Your task to perform on an android device: change alarm snooze length Image 0: 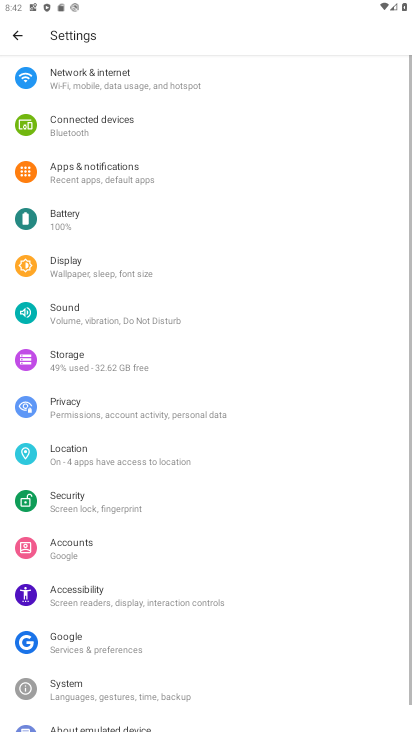
Step 0: press home button
Your task to perform on an android device: change alarm snooze length Image 1: 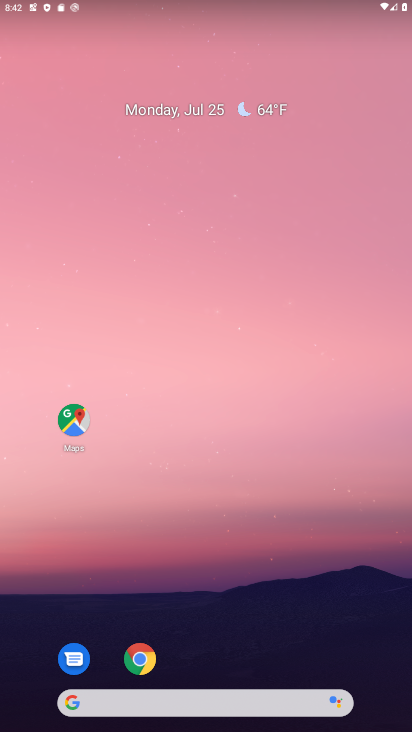
Step 1: drag from (356, 598) to (355, 93)
Your task to perform on an android device: change alarm snooze length Image 2: 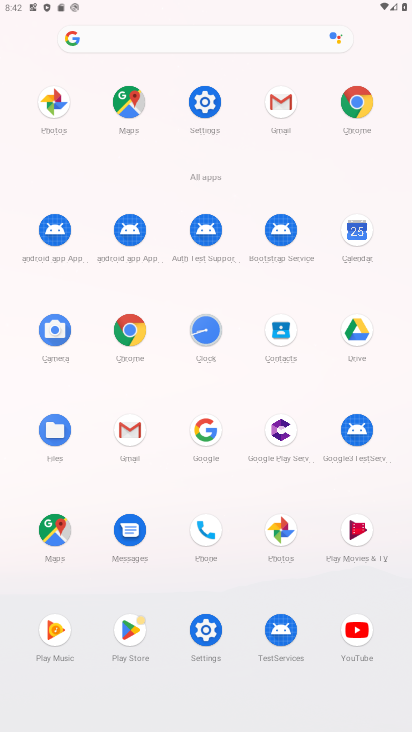
Step 2: click (206, 334)
Your task to perform on an android device: change alarm snooze length Image 3: 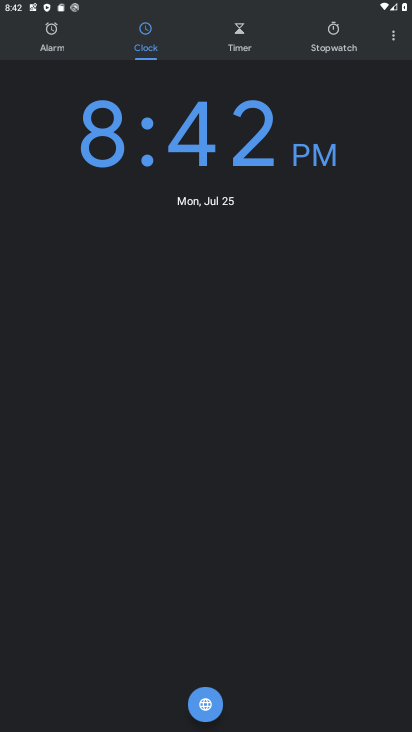
Step 3: click (394, 39)
Your task to perform on an android device: change alarm snooze length Image 4: 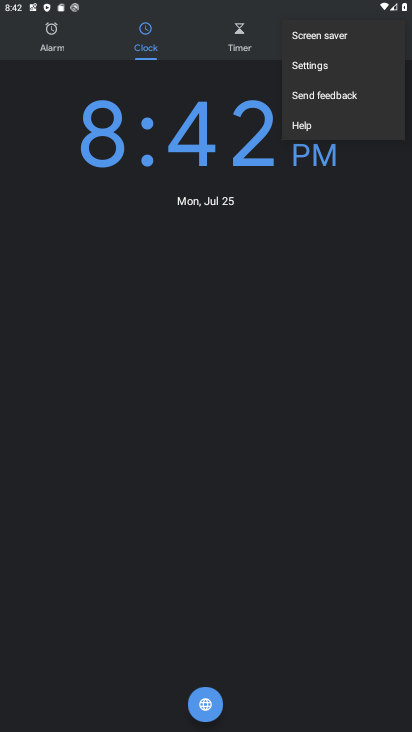
Step 4: click (328, 67)
Your task to perform on an android device: change alarm snooze length Image 5: 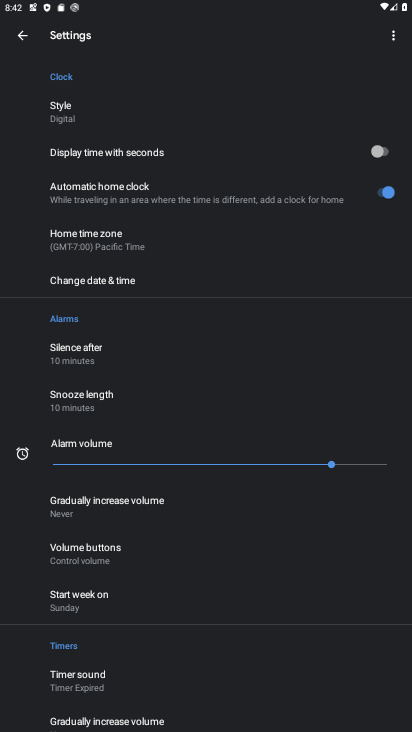
Step 5: drag from (249, 394) to (265, 260)
Your task to perform on an android device: change alarm snooze length Image 6: 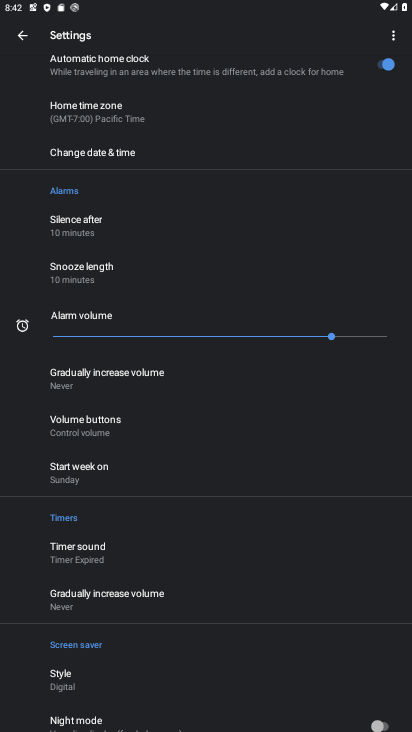
Step 6: drag from (251, 476) to (262, 331)
Your task to perform on an android device: change alarm snooze length Image 7: 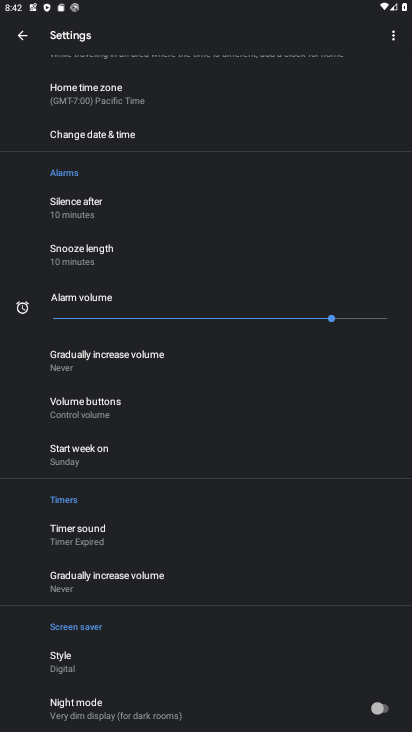
Step 7: drag from (263, 235) to (271, 367)
Your task to perform on an android device: change alarm snooze length Image 8: 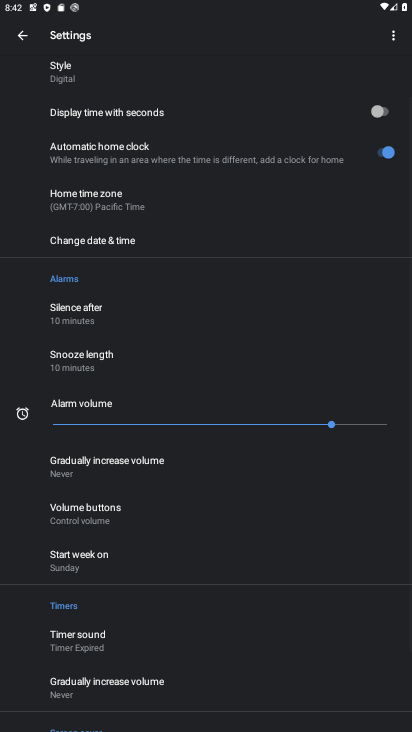
Step 8: drag from (279, 292) to (286, 411)
Your task to perform on an android device: change alarm snooze length Image 9: 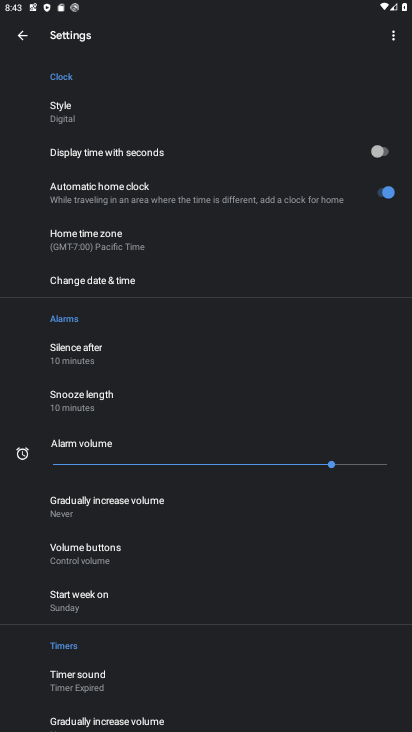
Step 9: click (125, 414)
Your task to perform on an android device: change alarm snooze length Image 10: 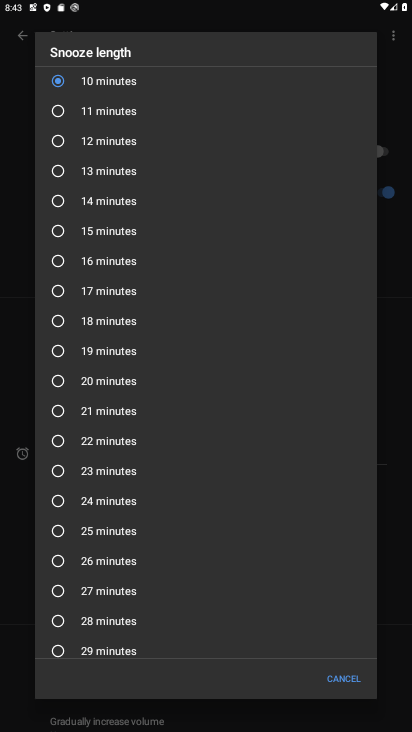
Step 10: click (140, 469)
Your task to perform on an android device: change alarm snooze length Image 11: 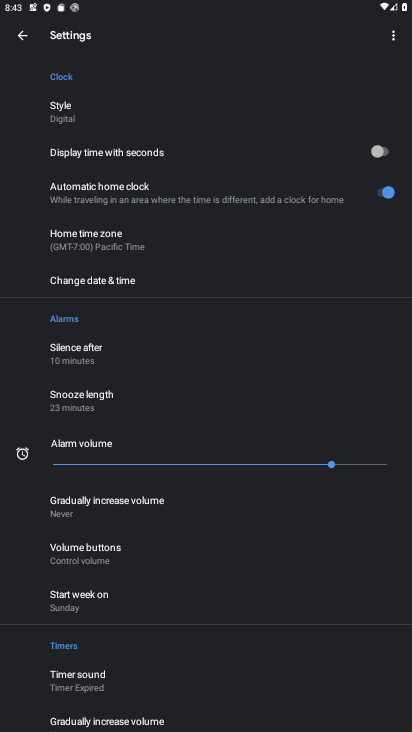
Step 11: task complete